Your task to perform on an android device: clear all cookies in the chrome app Image 0: 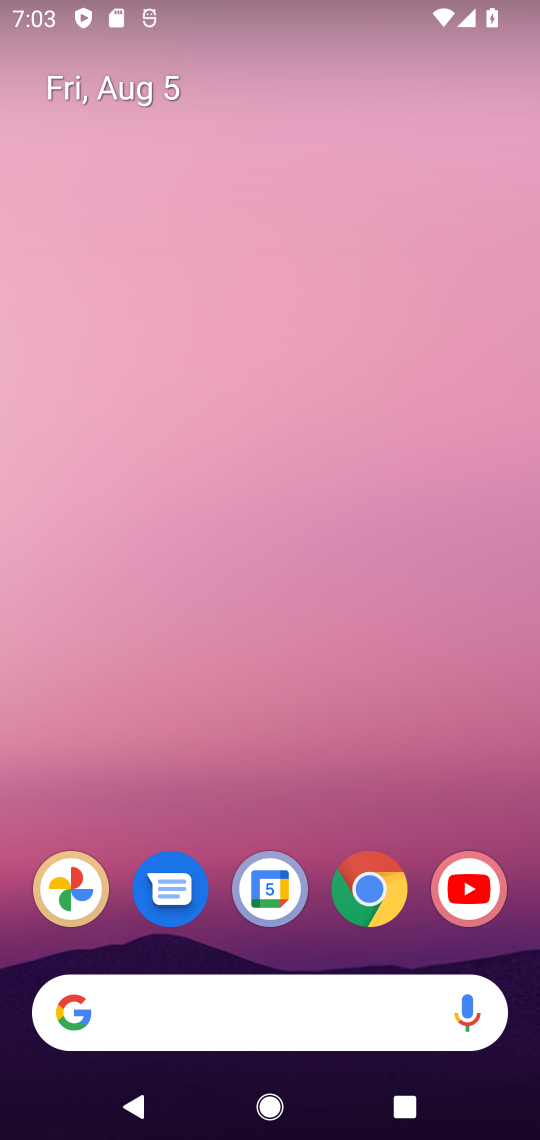
Step 0: click (407, 878)
Your task to perform on an android device: clear all cookies in the chrome app Image 1: 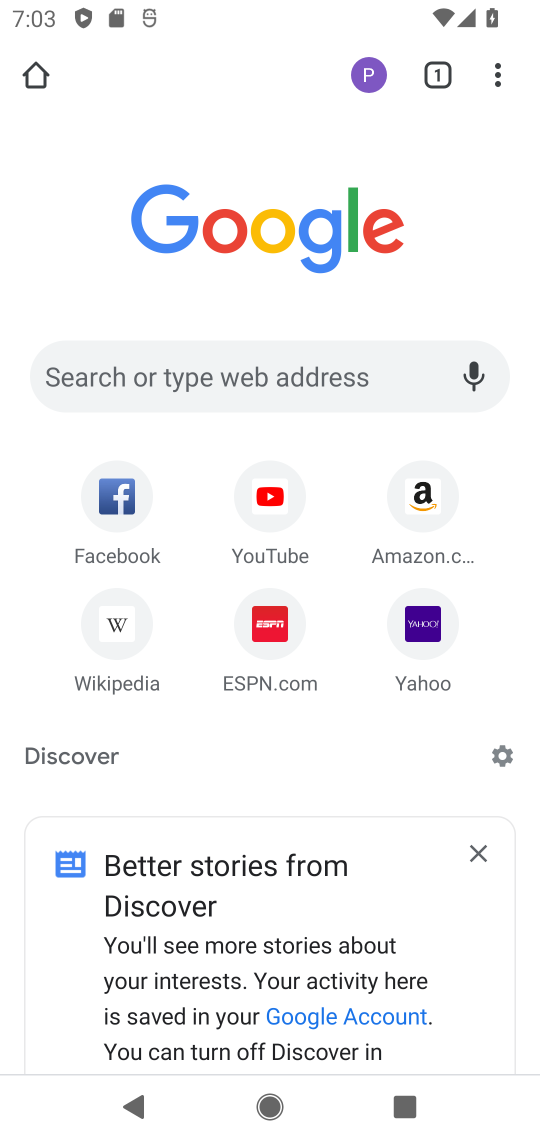
Step 1: click (502, 81)
Your task to perform on an android device: clear all cookies in the chrome app Image 2: 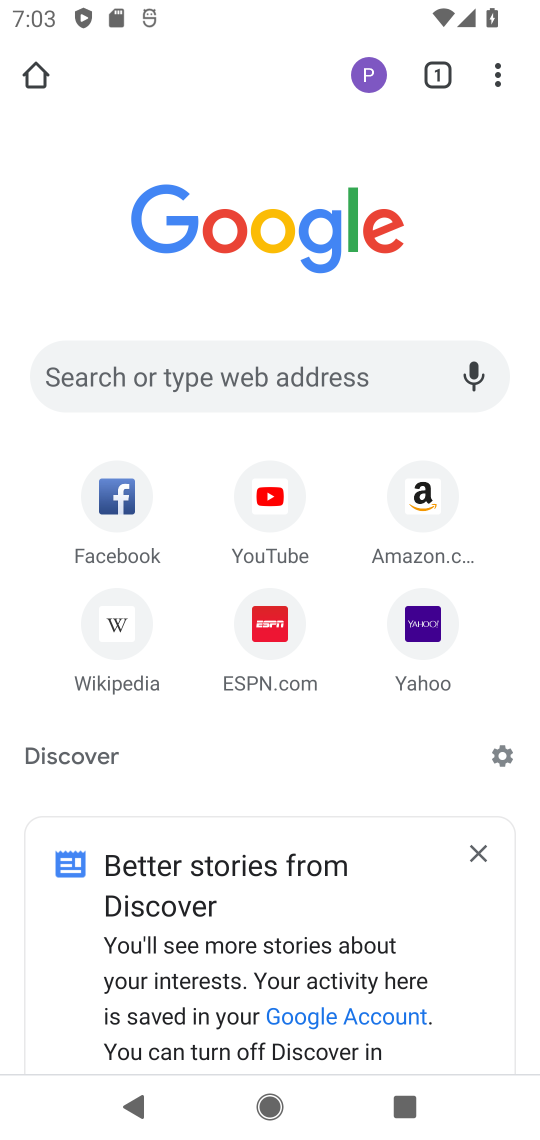
Step 2: click (488, 67)
Your task to perform on an android device: clear all cookies in the chrome app Image 3: 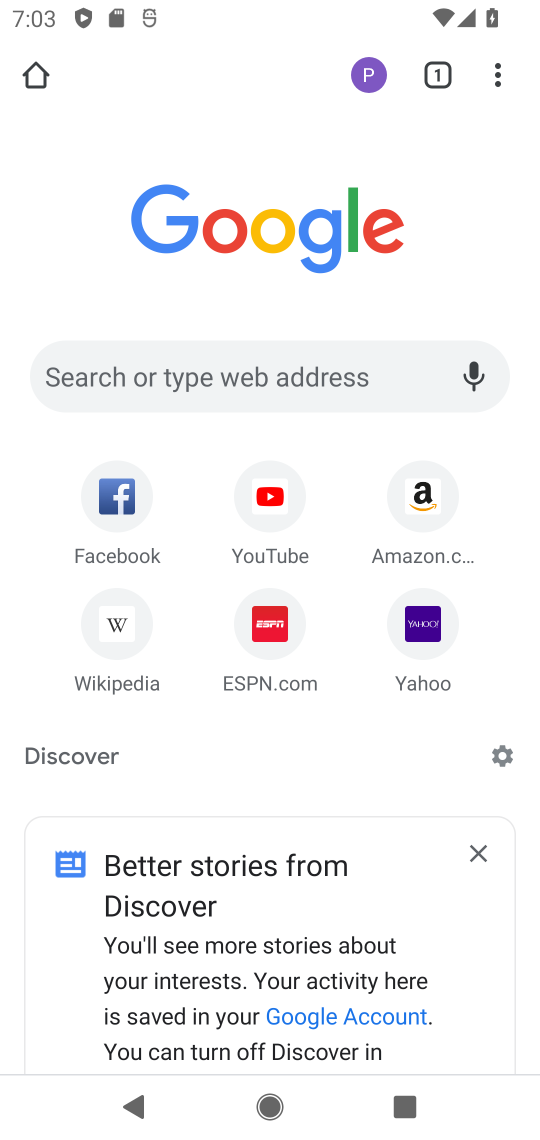
Step 3: click (488, 67)
Your task to perform on an android device: clear all cookies in the chrome app Image 4: 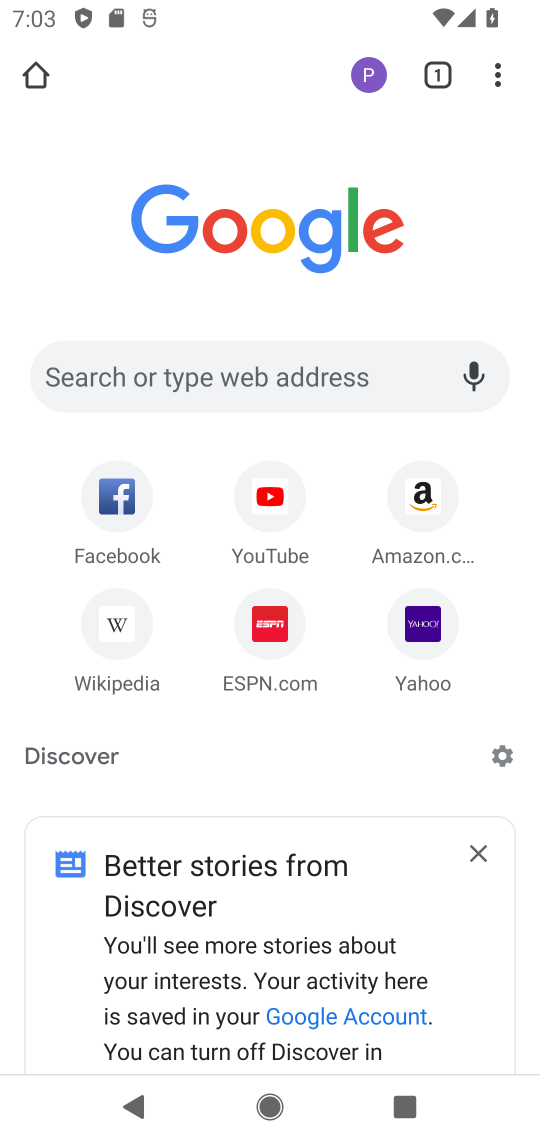
Step 4: click (487, 70)
Your task to perform on an android device: clear all cookies in the chrome app Image 5: 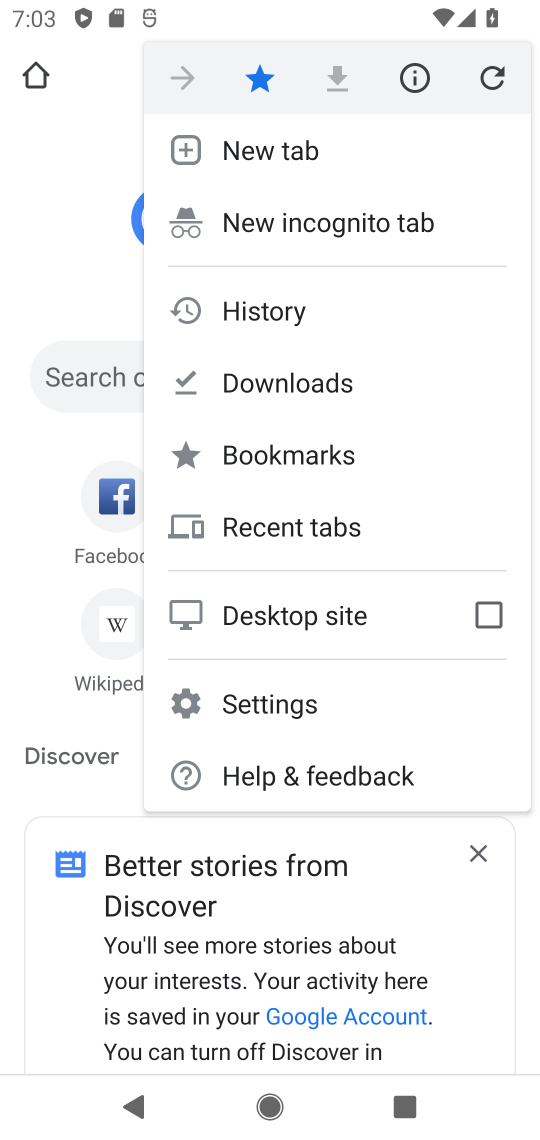
Step 5: click (259, 309)
Your task to perform on an android device: clear all cookies in the chrome app Image 6: 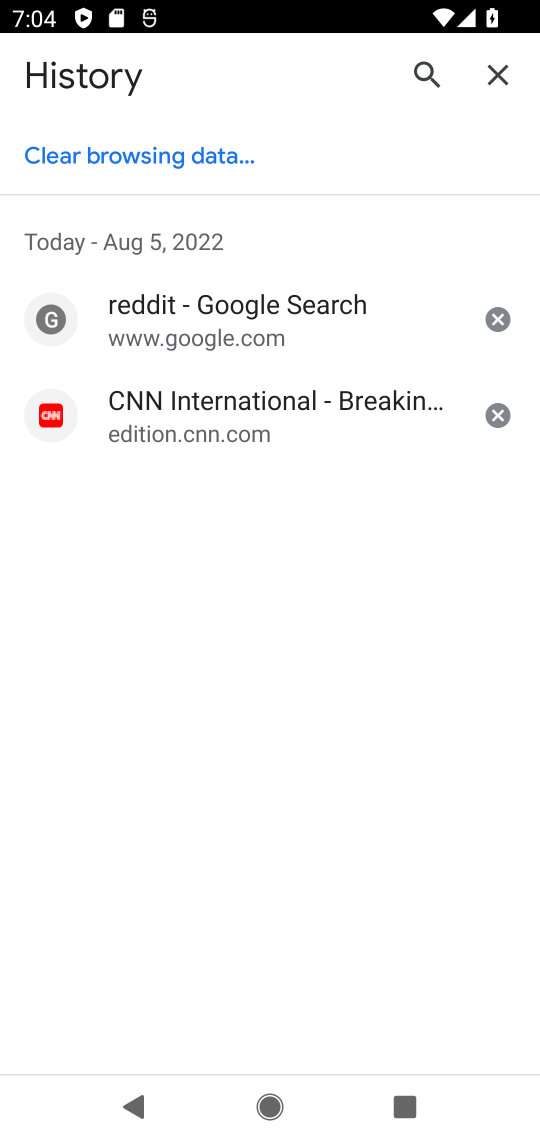
Step 6: click (154, 162)
Your task to perform on an android device: clear all cookies in the chrome app Image 7: 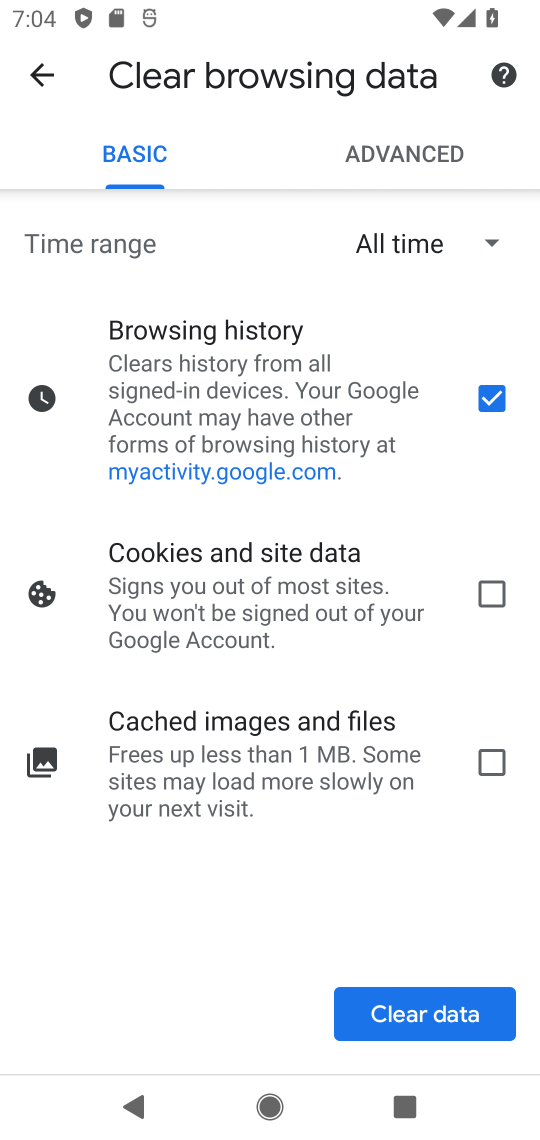
Step 7: click (395, 1023)
Your task to perform on an android device: clear all cookies in the chrome app Image 8: 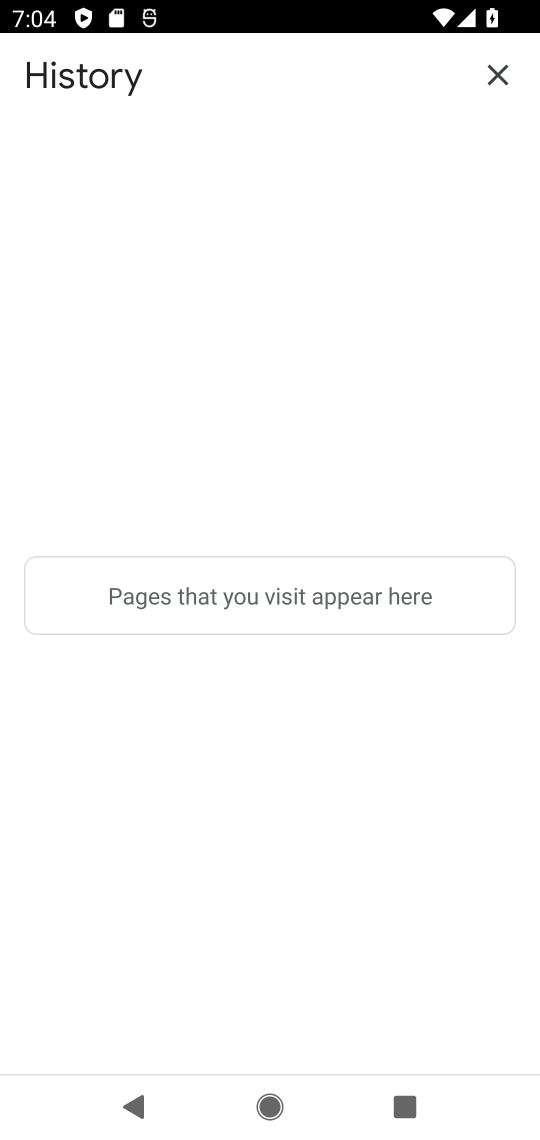
Step 8: task complete